Your task to perform on an android device: add a contact in the contacts app Image 0: 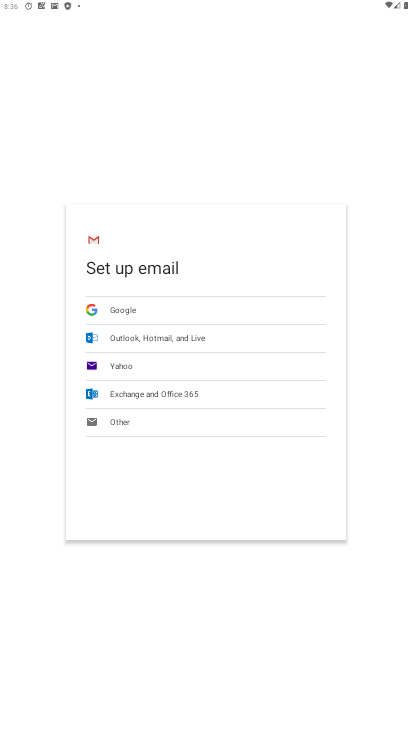
Step 0: press home button
Your task to perform on an android device: add a contact in the contacts app Image 1: 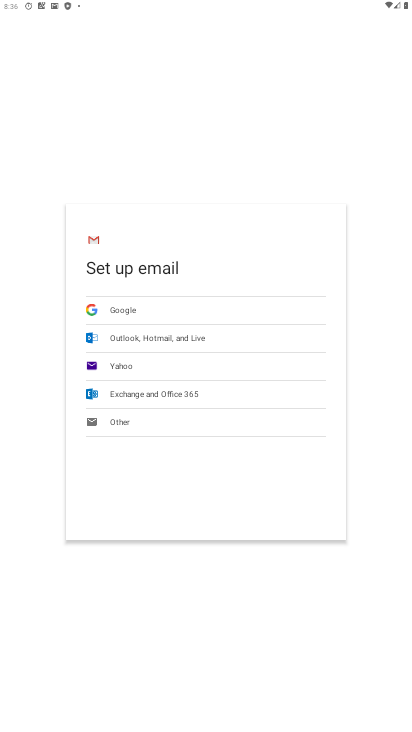
Step 1: press home button
Your task to perform on an android device: add a contact in the contacts app Image 2: 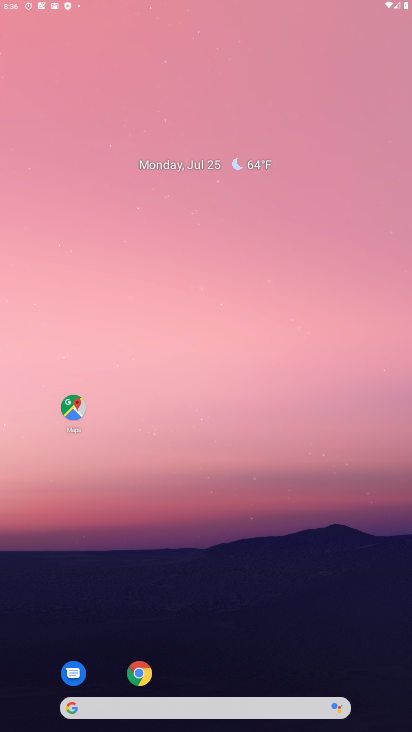
Step 2: drag from (196, 544) to (205, 84)
Your task to perform on an android device: add a contact in the contacts app Image 3: 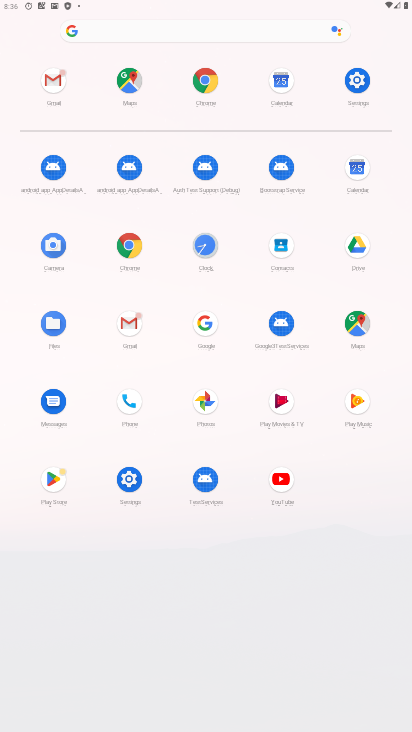
Step 3: click (269, 248)
Your task to perform on an android device: add a contact in the contacts app Image 4: 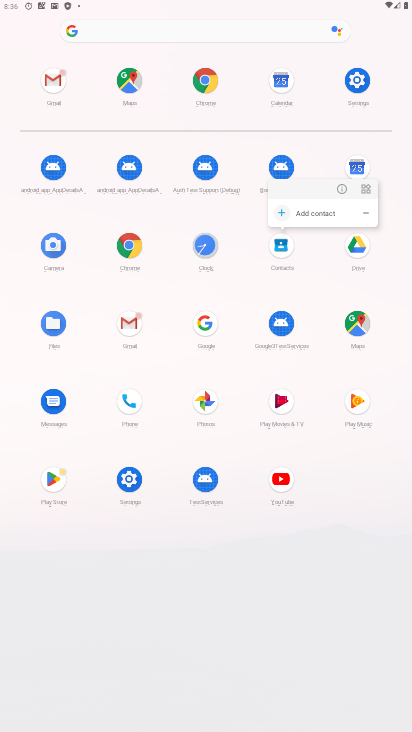
Step 4: click (283, 210)
Your task to perform on an android device: add a contact in the contacts app Image 5: 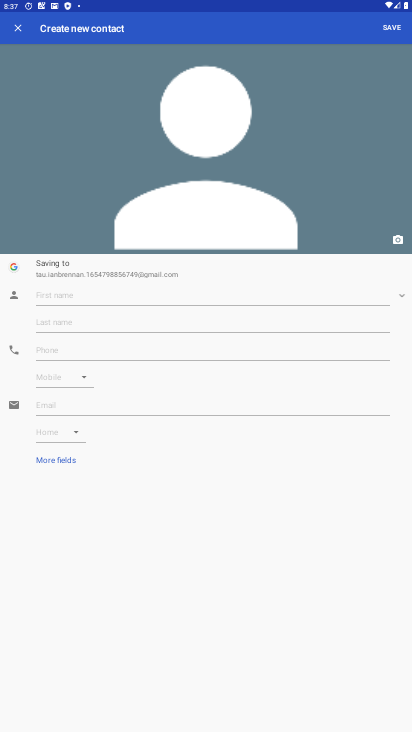
Step 5: click (72, 292)
Your task to perform on an android device: add a contact in the contacts app Image 6: 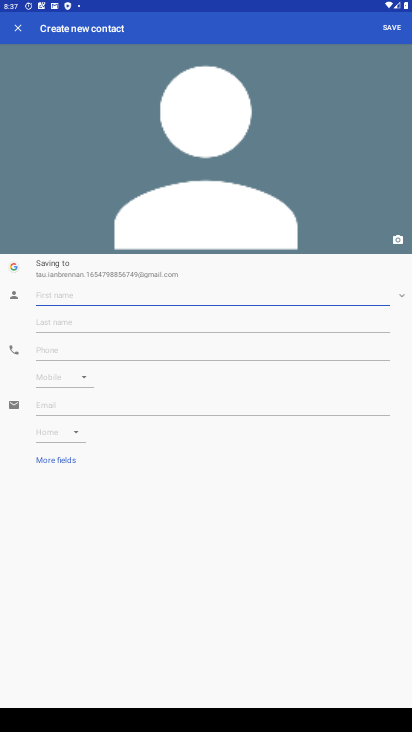
Step 6: type "mjnbcgg "
Your task to perform on an android device: add a contact in the contacts app Image 7: 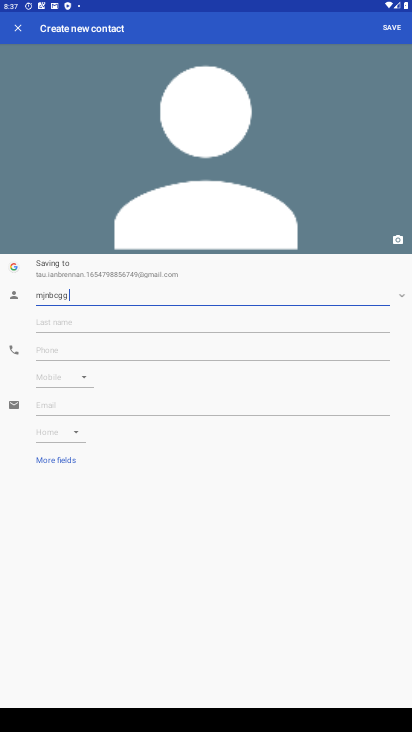
Step 7: click (50, 340)
Your task to perform on an android device: add a contact in the contacts app Image 8: 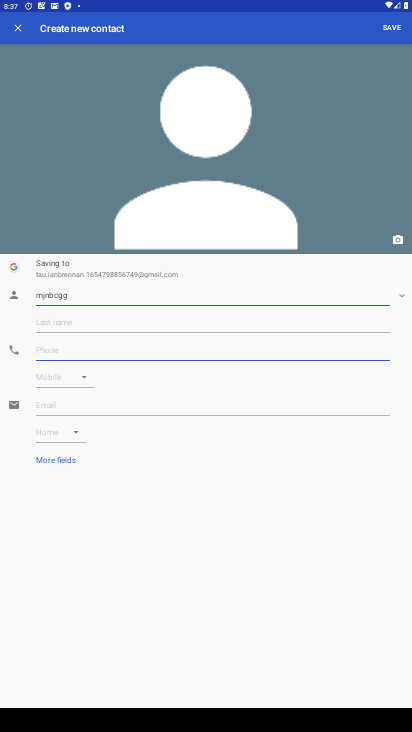
Step 8: click (49, 347)
Your task to perform on an android device: add a contact in the contacts app Image 9: 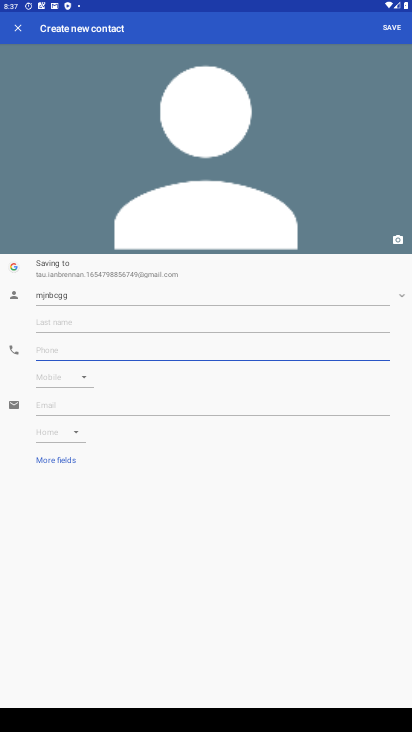
Step 9: type "9879764756"
Your task to perform on an android device: add a contact in the contacts app Image 10: 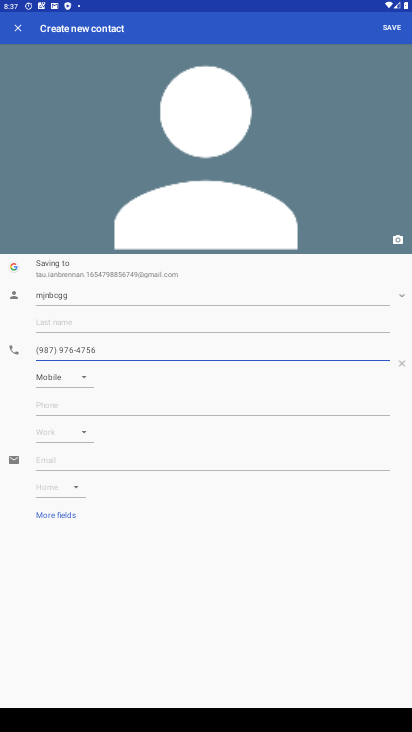
Step 10: click (393, 28)
Your task to perform on an android device: add a contact in the contacts app Image 11: 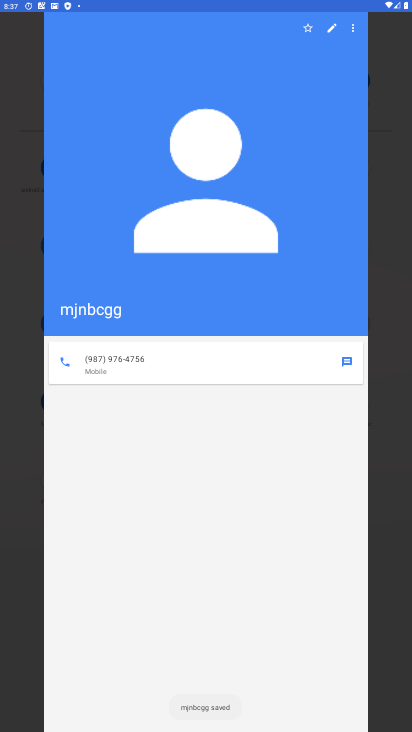
Step 11: task complete